Your task to perform on an android device: delete location history Image 0: 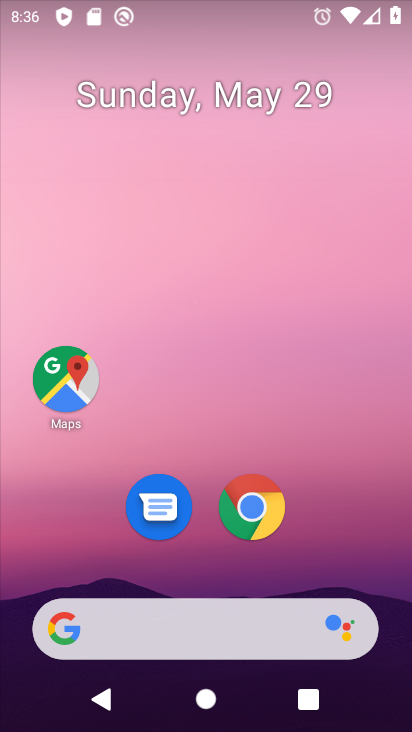
Step 0: click (82, 376)
Your task to perform on an android device: delete location history Image 1: 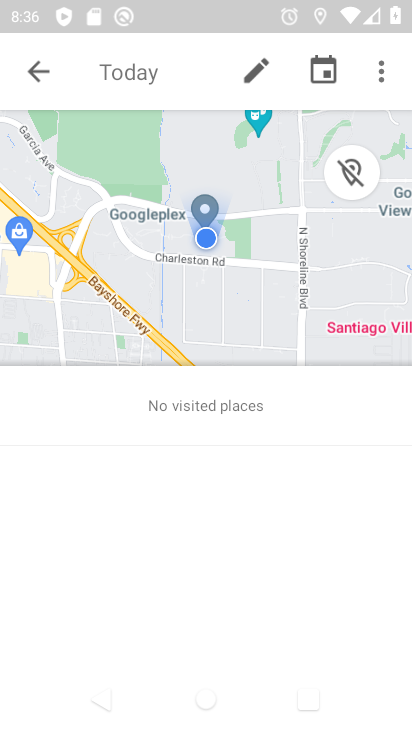
Step 1: click (384, 74)
Your task to perform on an android device: delete location history Image 2: 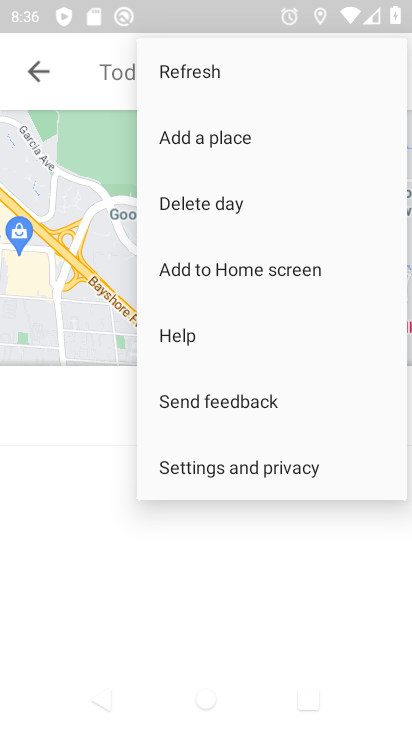
Step 2: task complete